Your task to perform on an android device: Open the web browser Image 0: 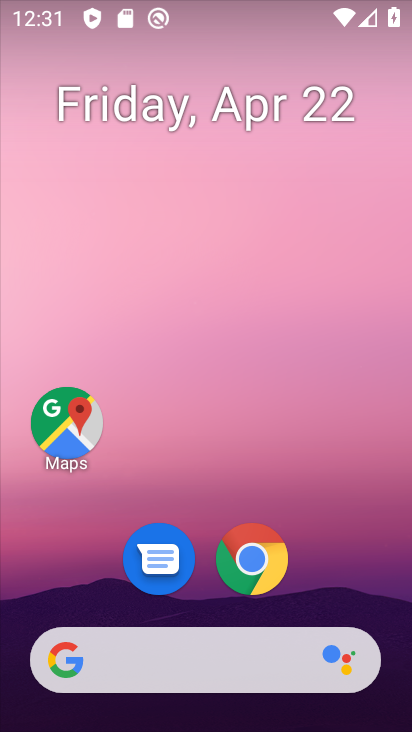
Step 0: click (405, 552)
Your task to perform on an android device: Open the web browser Image 1: 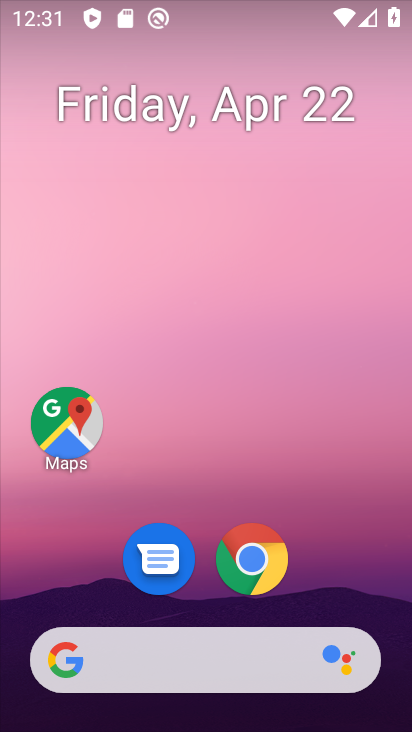
Step 1: drag from (348, 562) to (363, 175)
Your task to perform on an android device: Open the web browser Image 2: 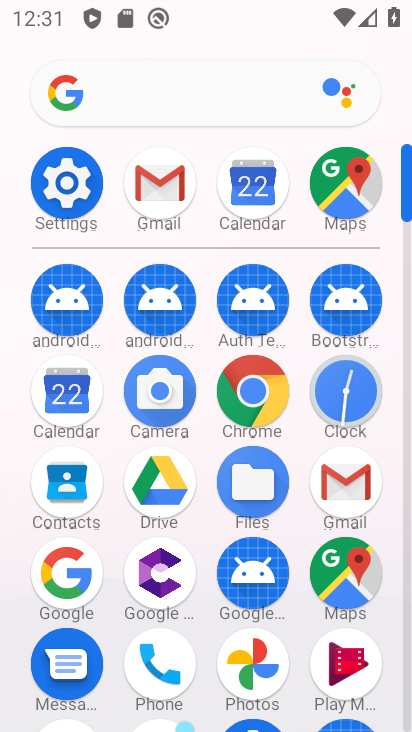
Step 2: click (255, 397)
Your task to perform on an android device: Open the web browser Image 3: 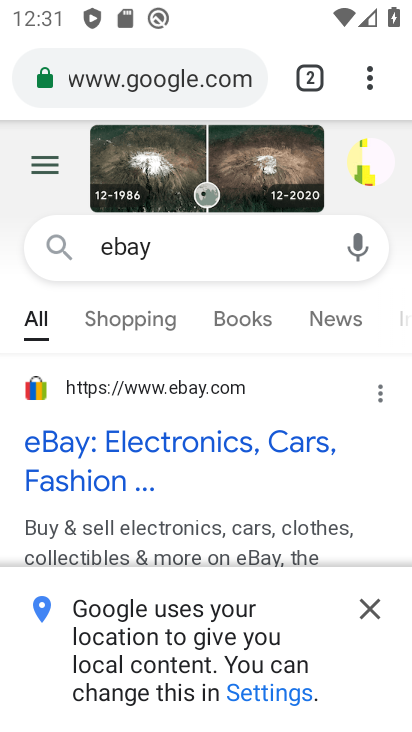
Step 3: task complete